Your task to perform on an android device: set an alarm Image 0: 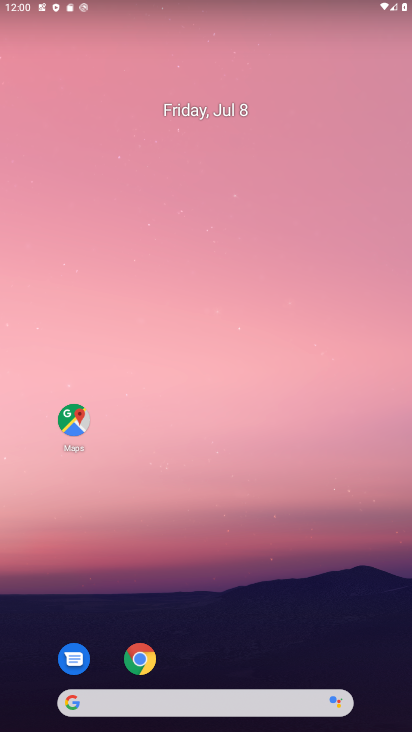
Step 0: drag from (254, 595) to (220, 123)
Your task to perform on an android device: set an alarm Image 1: 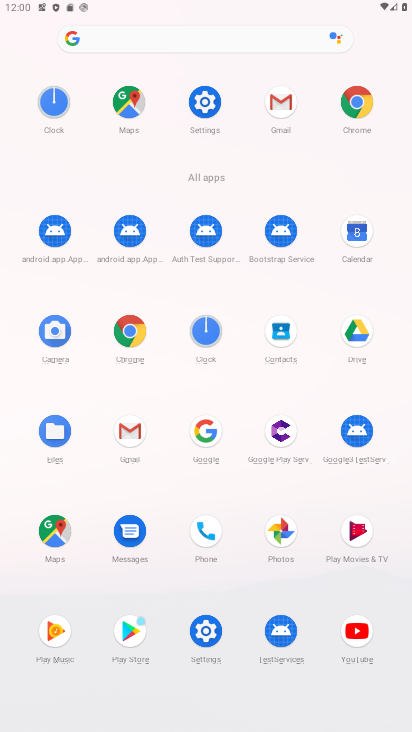
Step 1: click (208, 338)
Your task to perform on an android device: set an alarm Image 2: 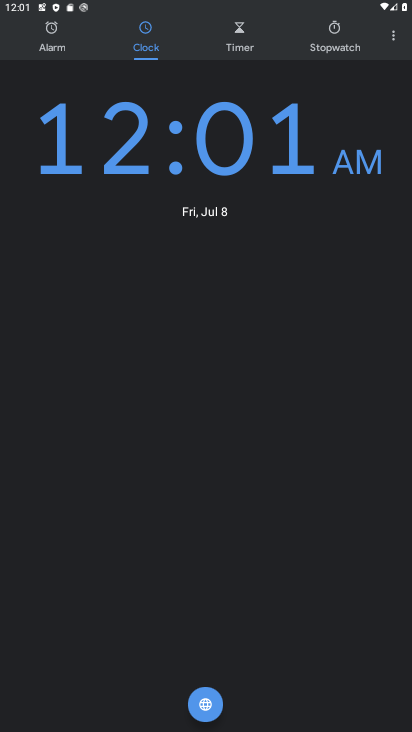
Step 2: click (50, 32)
Your task to perform on an android device: set an alarm Image 3: 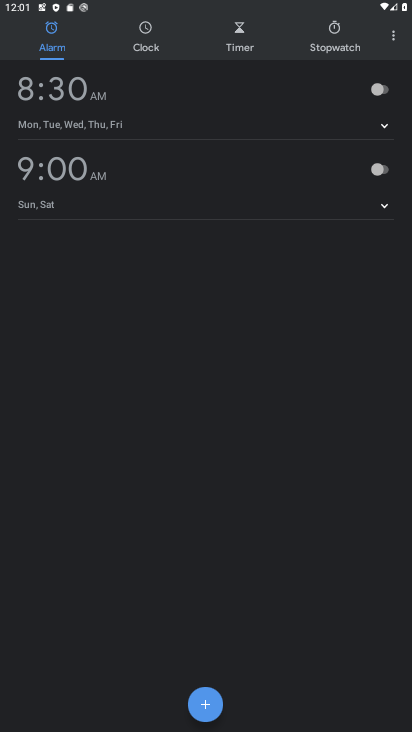
Step 3: click (204, 704)
Your task to perform on an android device: set an alarm Image 4: 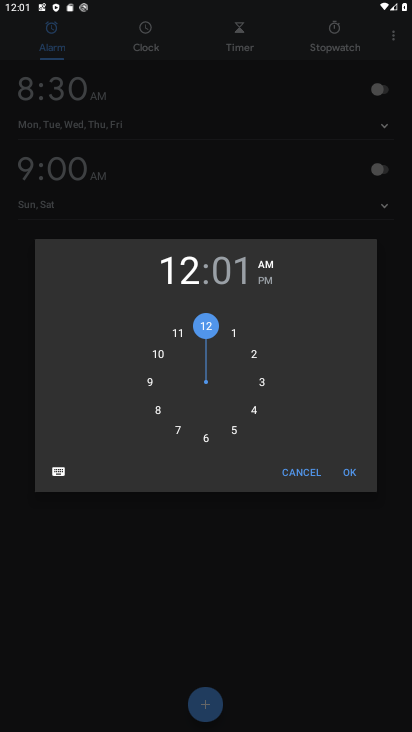
Step 4: click (353, 475)
Your task to perform on an android device: set an alarm Image 5: 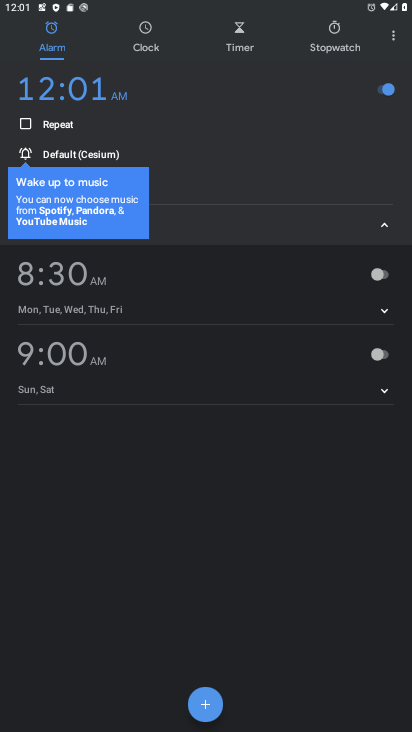
Step 5: task complete